Your task to perform on an android device: Go to location settings Image 0: 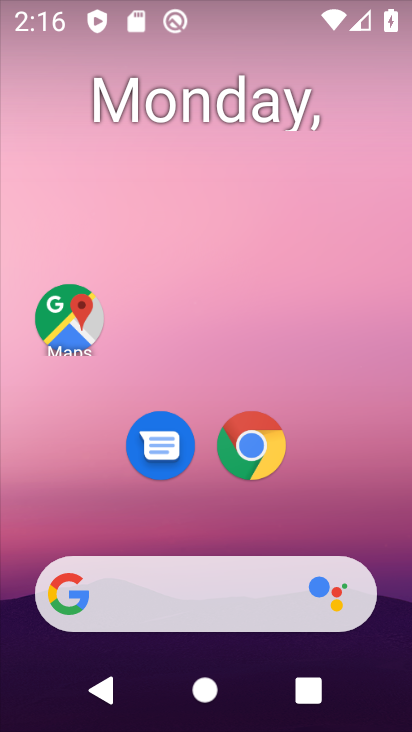
Step 0: drag from (340, 513) to (268, 7)
Your task to perform on an android device: Go to location settings Image 1: 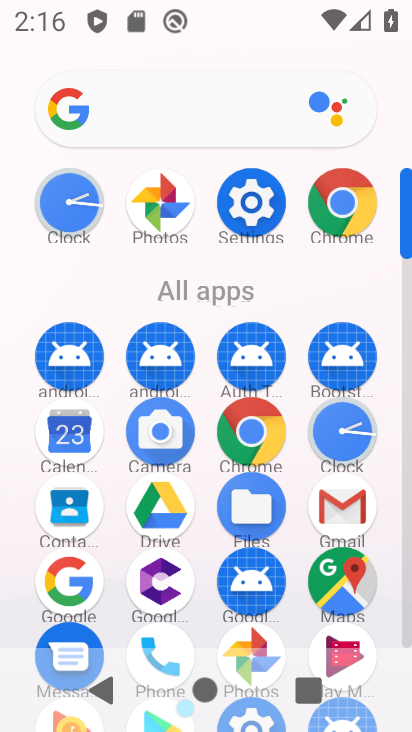
Step 1: drag from (14, 651) to (5, 312)
Your task to perform on an android device: Go to location settings Image 2: 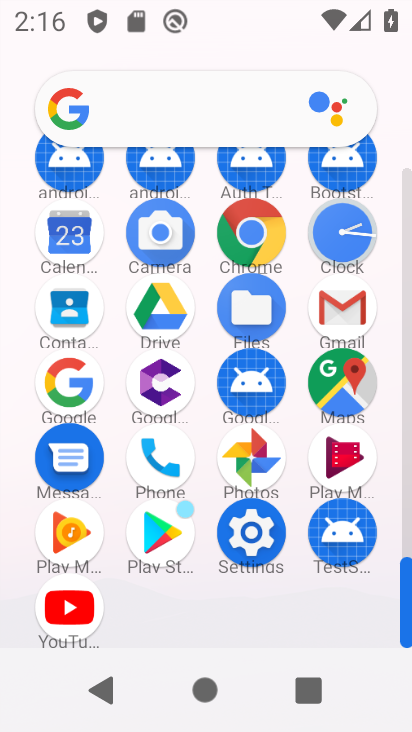
Step 2: click (247, 526)
Your task to perform on an android device: Go to location settings Image 3: 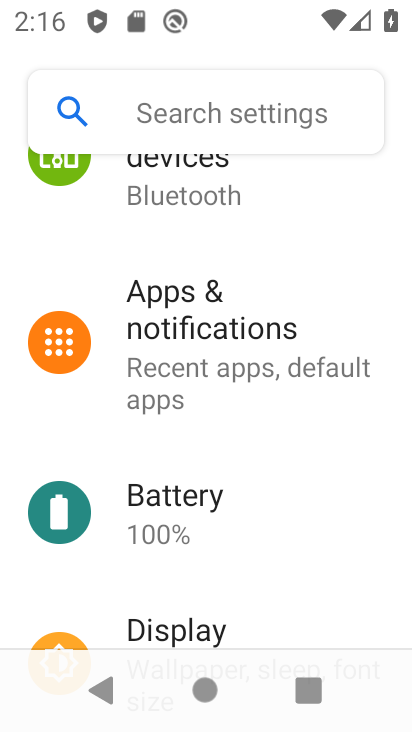
Step 3: drag from (270, 558) to (302, 172)
Your task to perform on an android device: Go to location settings Image 4: 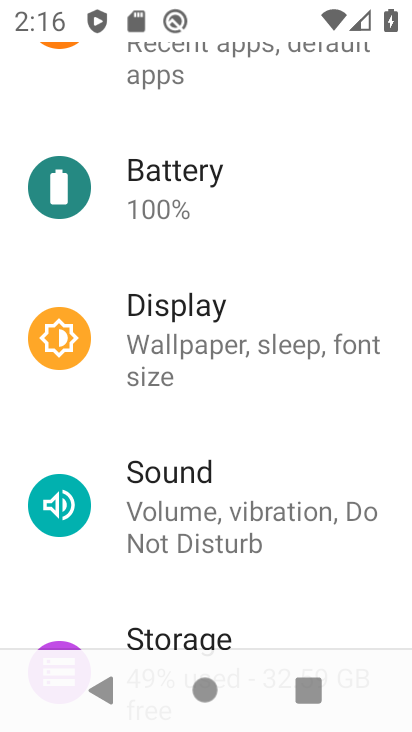
Step 4: drag from (262, 546) to (255, 153)
Your task to perform on an android device: Go to location settings Image 5: 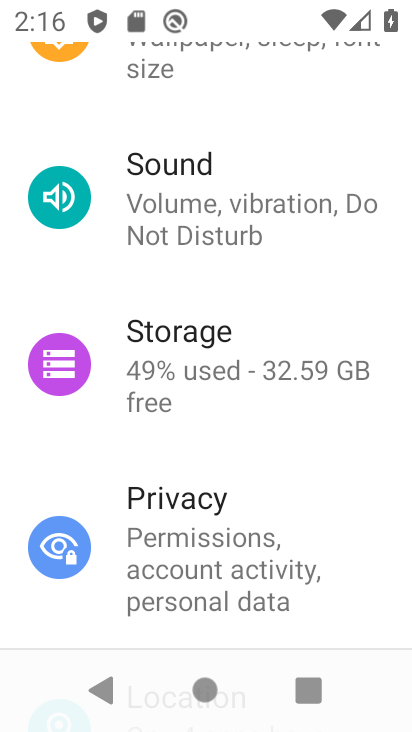
Step 5: drag from (259, 548) to (234, 89)
Your task to perform on an android device: Go to location settings Image 6: 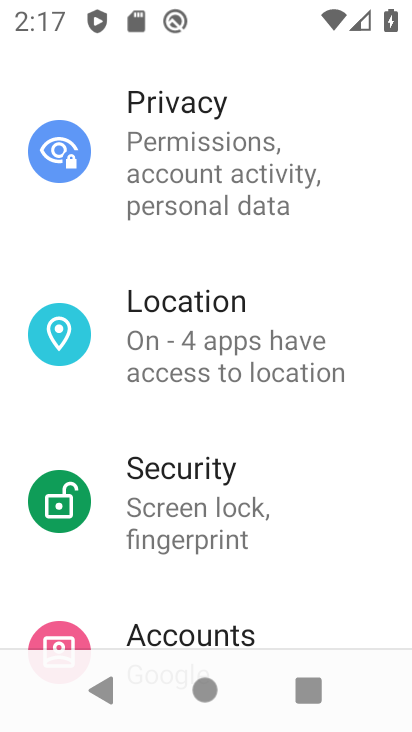
Step 6: click (222, 314)
Your task to perform on an android device: Go to location settings Image 7: 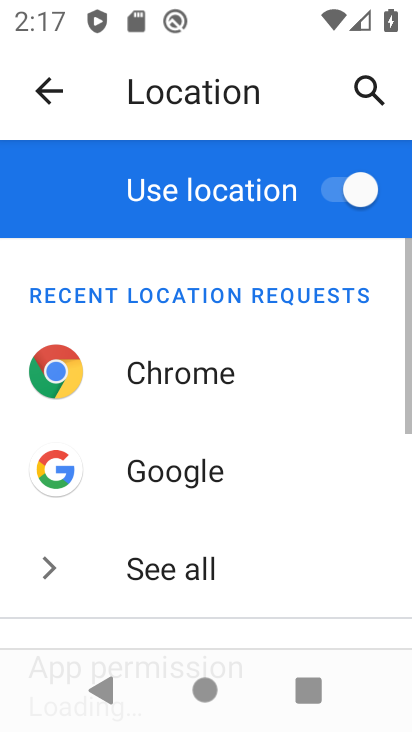
Step 7: drag from (229, 573) to (261, 154)
Your task to perform on an android device: Go to location settings Image 8: 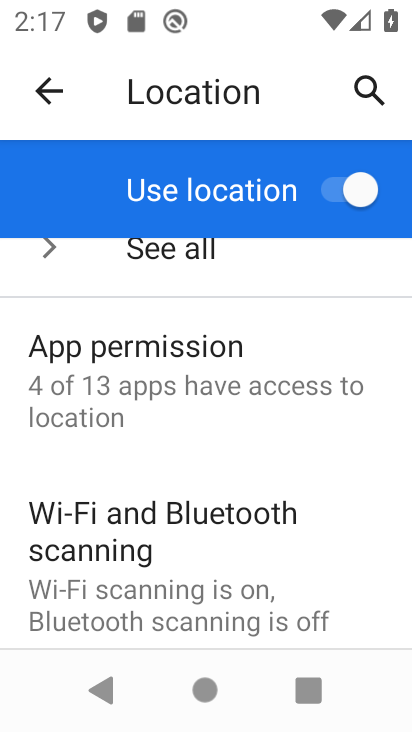
Step 8: drag from (244, 328) to (246, 579)
Your task to perform on an android device: Go to location settings Image 9: 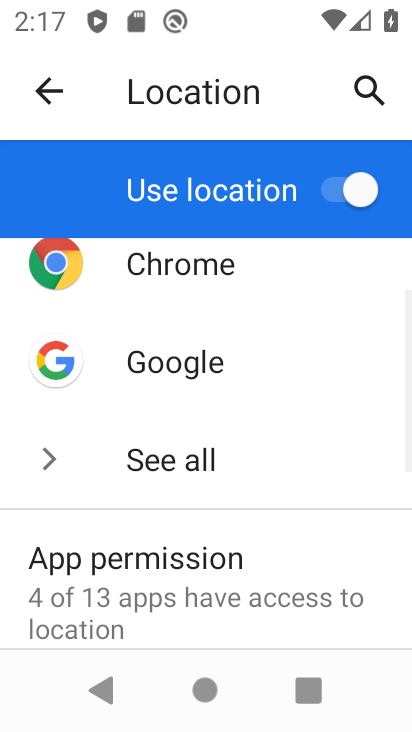
Step 9: drag from (236, 583) to (250, 209)
Your task to perform on an android device: Go to location settings Image 10: 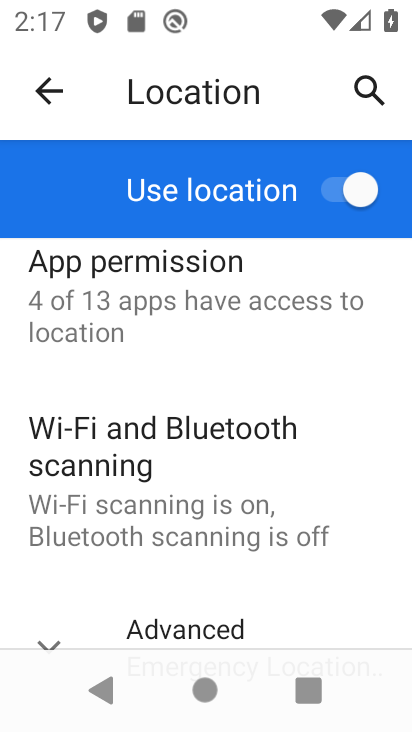
Step 10: drag from (196, 556) to (210, 248)
Your task to perform on an android device: Go to location settings Image 11: 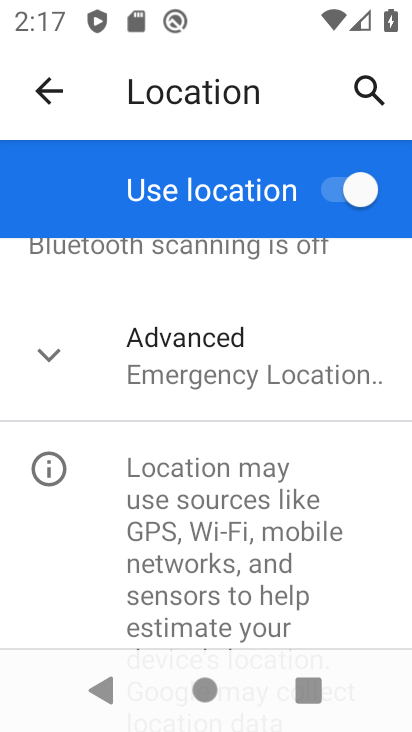
Step 11: click (70, 349)
Your task to perform on an android device: Go to location settings Image 12: 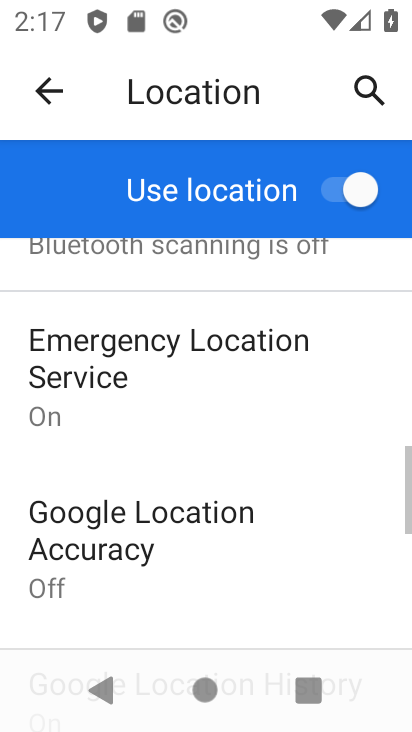
Step 12: task complete